Your task to perform on an android device: Go to Android settings Image 0: 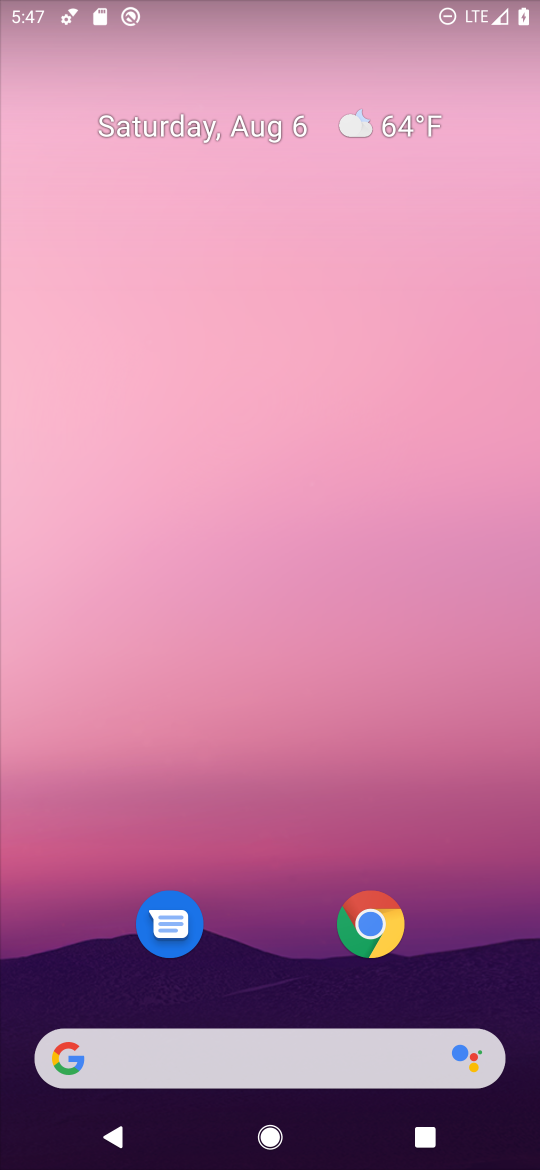
Step 0: drag from (277, 876) to (270, 184)
Your task to perform on an android device: Go to Android settings Image 1: 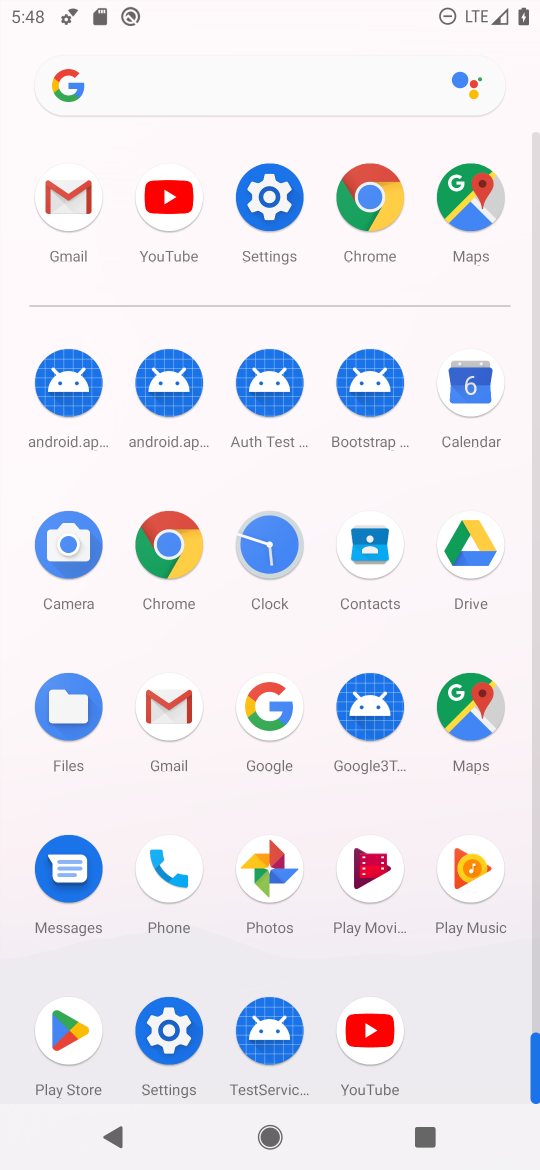
Step 1: click (269, 191)
Your task to perform on an android device: Go to Android settings Image 2: 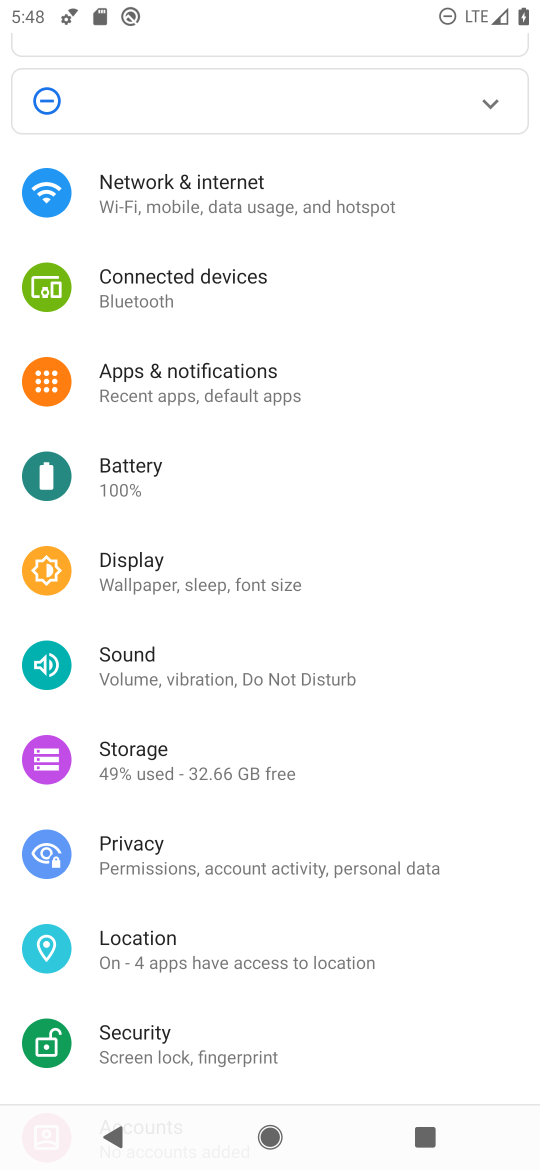
Step 2: task complete